Your task to perform on an android device: Do I have any events this weekend? Image 0: 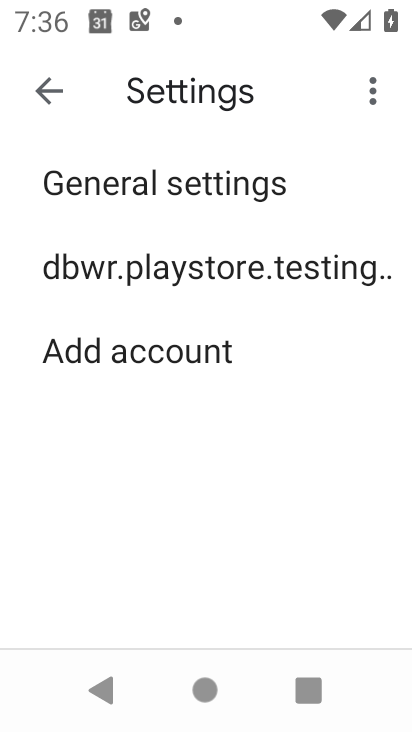
Step 0: press home button
Your task to perform on an android device: Do I have any events this weekend? Image 1: 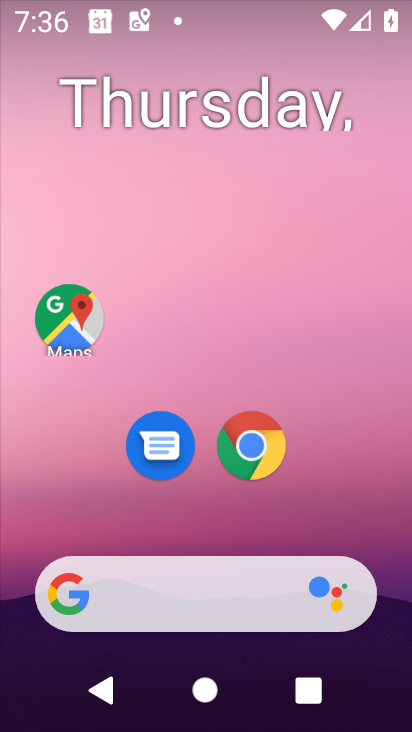
Step 1: drag from (393, 601) to (258, 89)
Your task to perform on an android device: Do I have any events this weekend? Image 2: 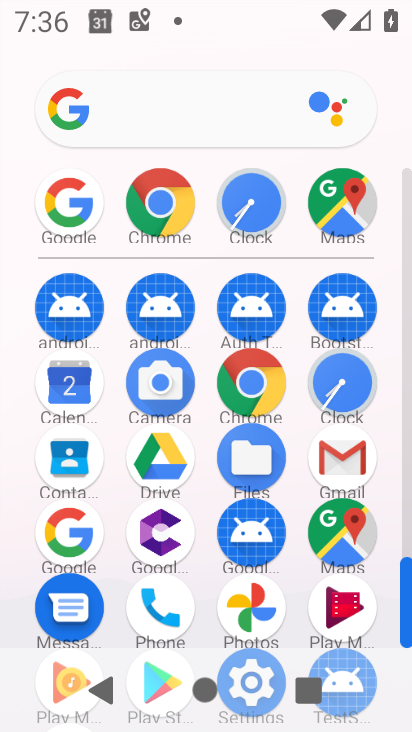
Step 2: click (44, 381)
Your task to perform on an android device: Do I have any events this weekend? Image 3: 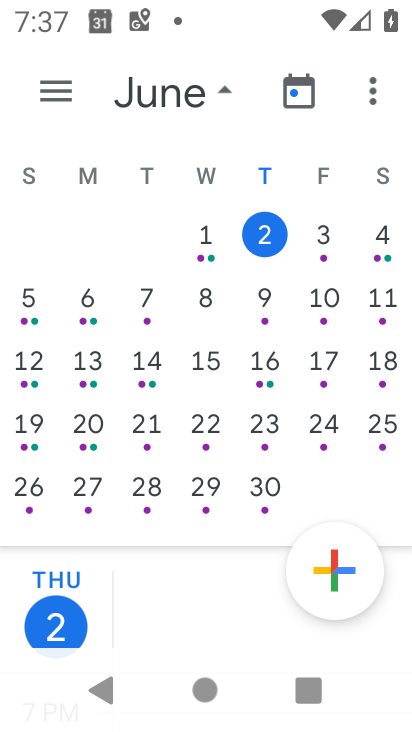
Step 3: click (381, 301)
Your task to perform on an android device: Do I have any events this weekend? Image 4: 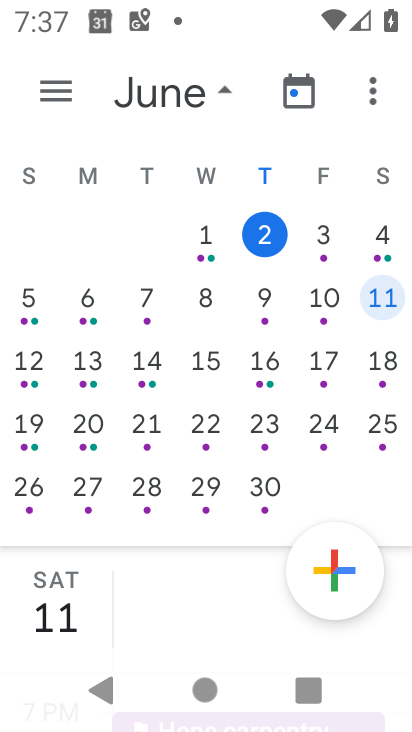
Step 4: click (385, 229)
Your task to perform on an android device: Do I have any events this weekend? Image 5: 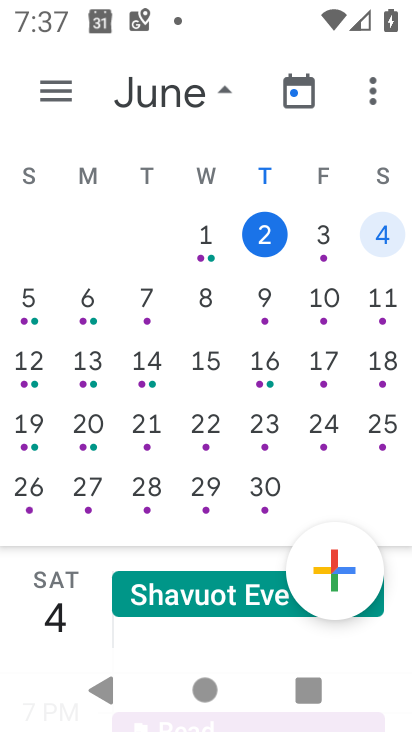
Step 5: click (216, 580)
Your task to perform on an android device: Do I have any events this weekend? Image 6: 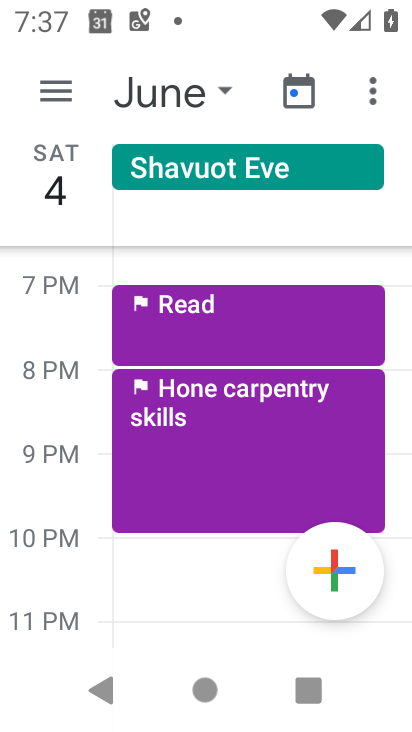
Step 6: click (197, 491)
Your task to perform on an android device: Do I have any events this weekend? Image 7: 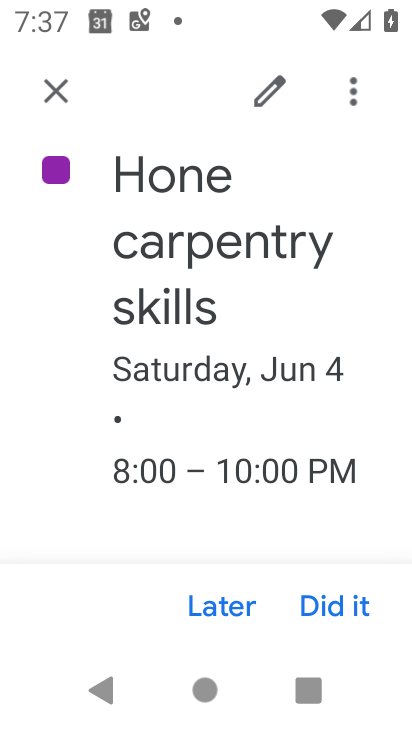
Step 7: task complete